Your task to perform on an android device: open the mobile data screen to see how much data has been used Image 0: 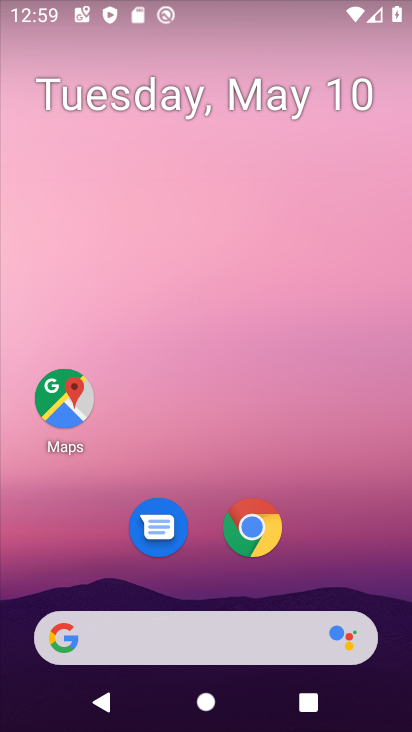
Step 0: drag from (360, 606) to (384, 2)
Your task to perform on an android device: open the mobile data screen to see how much data has been used Image 1: 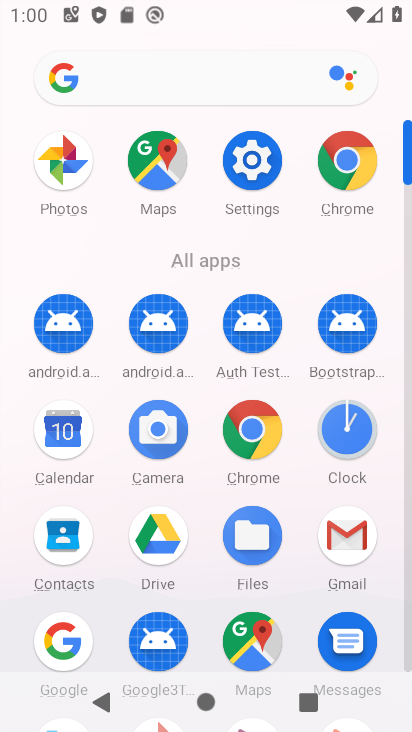
Step 1: click (255, 168)
Your task to perform on an android device: open the mobile data screen to see how much data has been used Image 2: 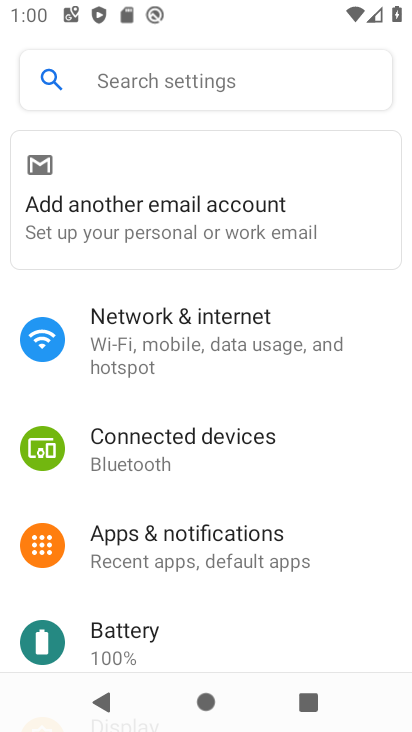
Step 2: click (173, 346)
Your task to perform on an android device: open the mobile data screen to see how much data has been used Image 3: 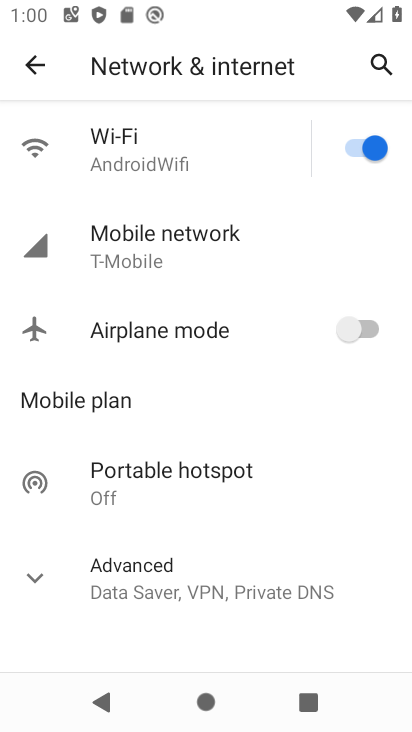
Step 3: click (131, 260)
Your task to perform on an android device: open the mobile data screen to see how much data has been used Image 4: 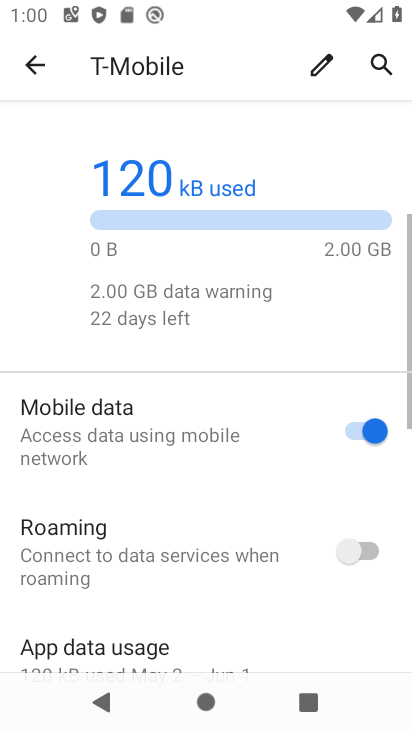
Step 4: drag from (211, 544) to (216, 219)
Your task to perform on an android device: open the mobile data screen to see how much data has been used Image 5: 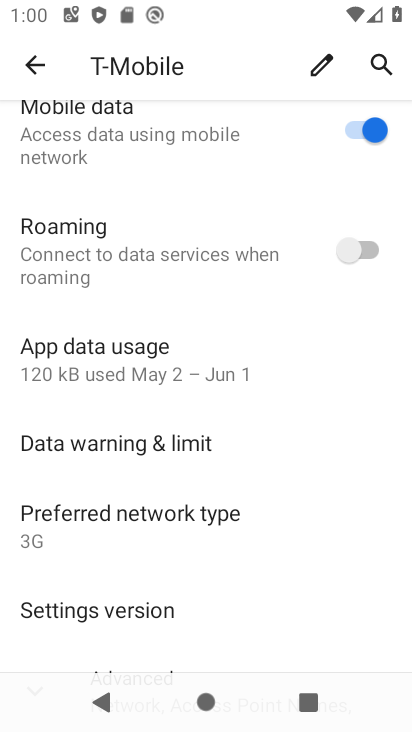
Step 5: click (116, 371)
Your task to perform on an android device: open the mobile data screen to see how much data has been used Image 6: 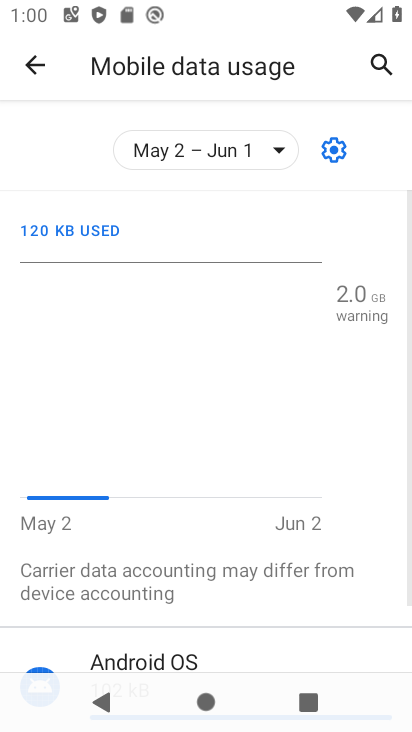
Step 6: task complete